Your task to perform on an android device: Open calendar and show me the fourth week of next month Image 0: 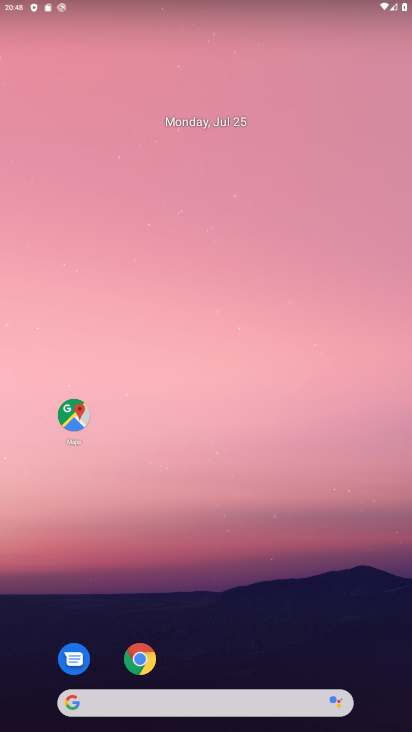
Step 0: drag from (193, 655) to (194, 168)
Your task to perform on an android device: Open calendar and show me the fourth week of next month Image 1: 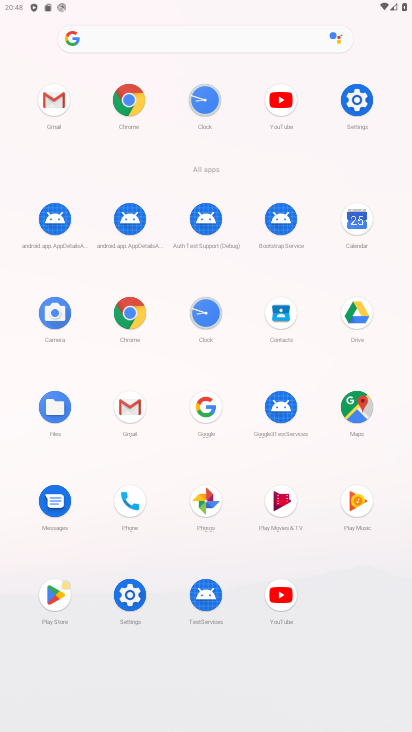
Step 1: click (351, 232)
Your task to perform on an android device: Open calendar and show me the fourth week of next month Image 2: 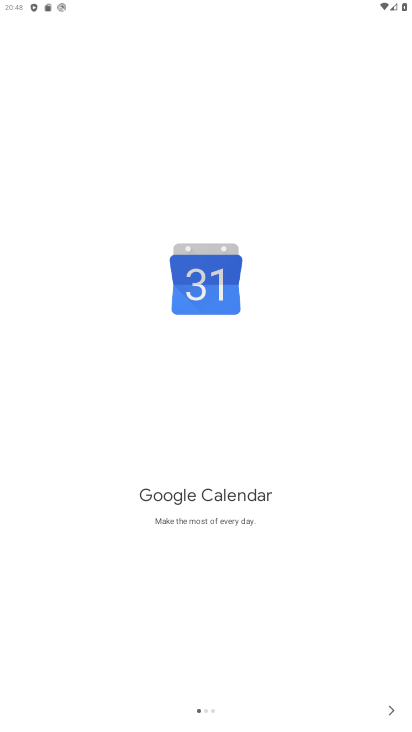
Step 2: click (385, 707)
Your task to perform on an android device: Open calendar and show me the fourth week of next month Image 3: 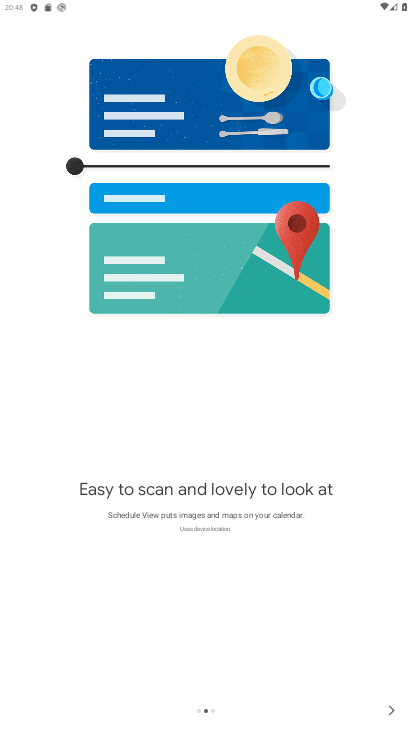
Step 3: click (385, 707)
Your task to perform on an android device: Open calendar and show me the fourth week of next month Image 4: 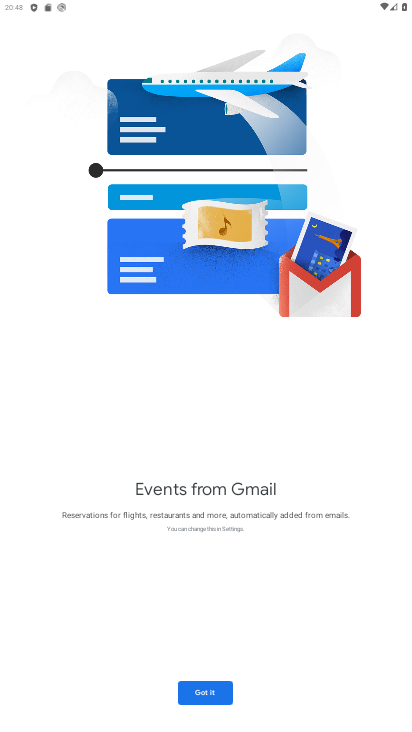
Step 4: click (206, 695)
Your task to perform on an android device: Open calendar and show me the fourth week of next month Image 5: 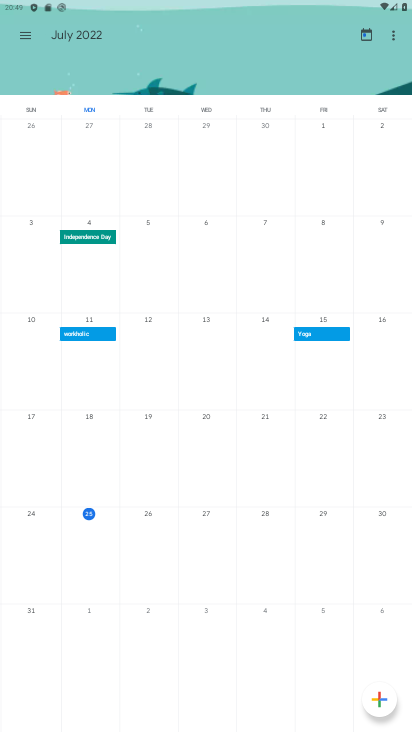
Step 5: click (100, 41)
Your task to perform on an android device: Open calendar and show me the fourth week of next month Image 6: 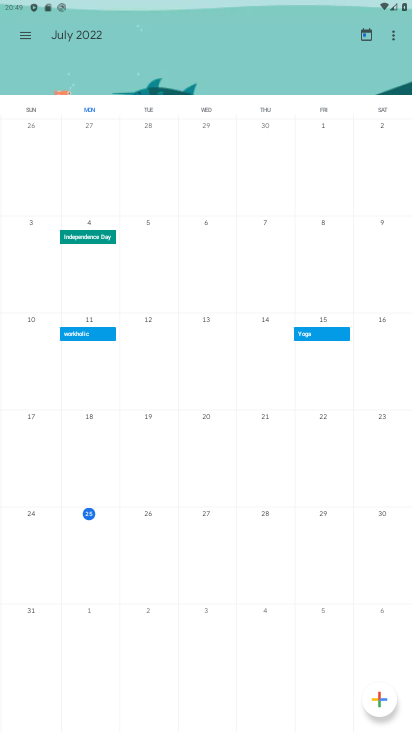
Step 6: drag from (369, 296) to (35, 273)
Your task to perform on an android device: Open calendar and show me the fourth week of next month Image 7: 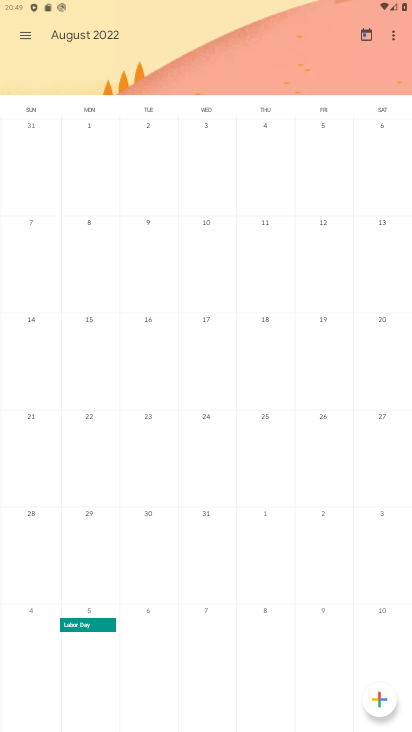
Step 7: drag from (44, 338) to (35, 412)
Your task to perform on an android device: Open calendar and show me the fourth week of next month Image 8: 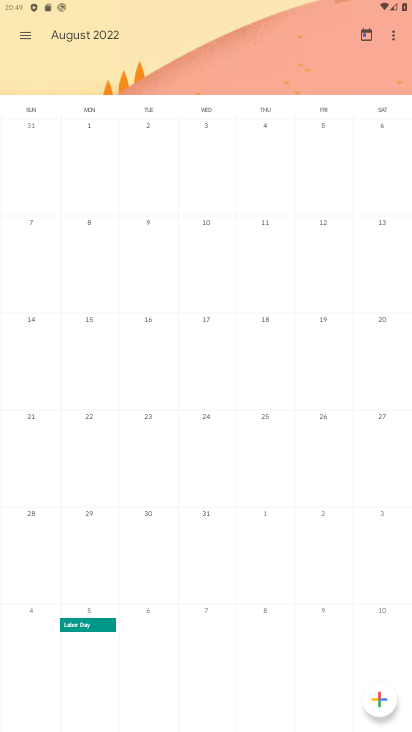
Step 8: click (22, 418)
Your task to perform on an android device: Open calendar and show me the fourth week of next month Image 9: 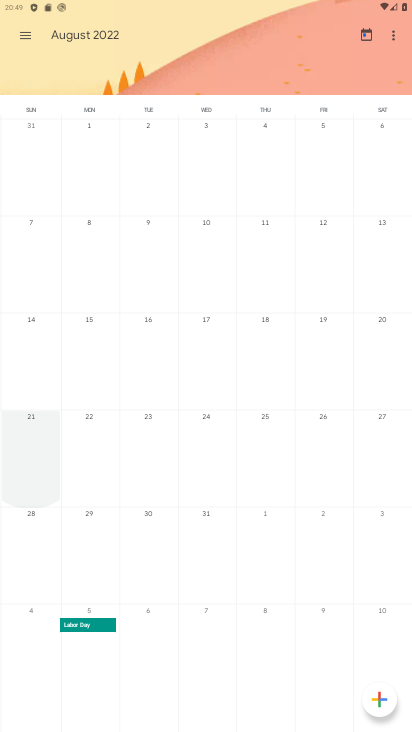
Step 9: click (32, 426)
Your task to perform on an android device: Open calendar and show me the fourth week of next month Image 10: 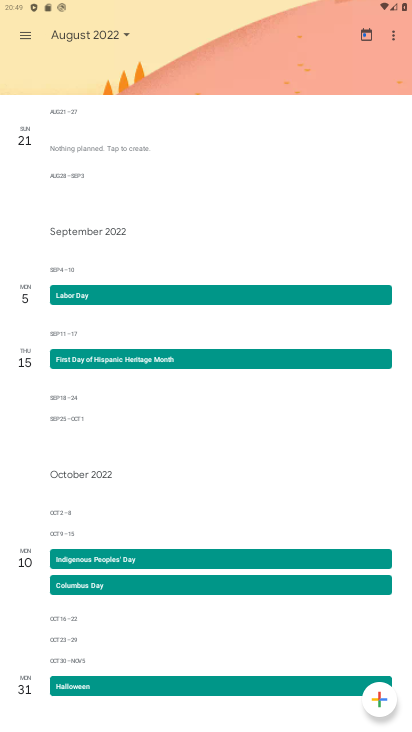
Step 10: click (16, 35)
Your task to perform on an android device: Open calendar and show me the fourth week of next month Image 11: 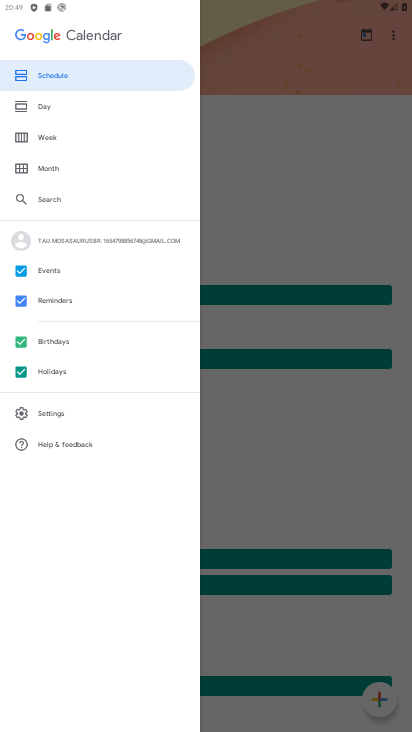
Step 11: click (248, 123)
Your task to perform on an android device: Open calendar and show me the fourth week of next month Image 12: 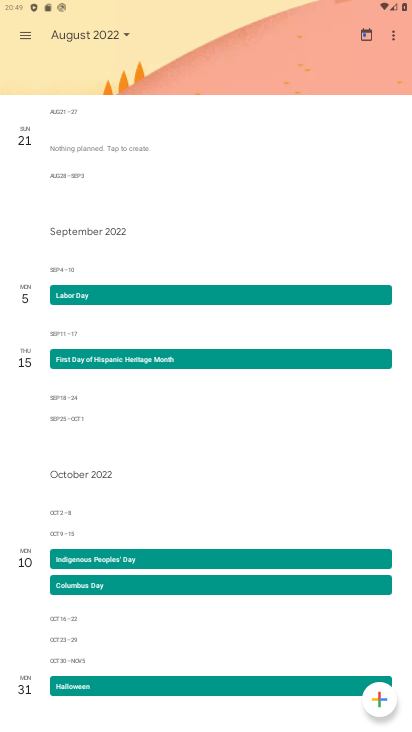
Step 12: task complete